Your task to perform on an android device: turn notification dots on Image 0: 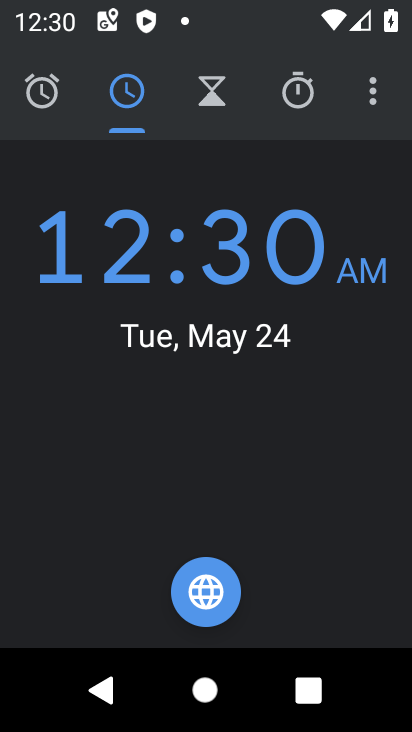
Step 0: press home button
Your task to perform on an android device: turn notification dots on Image 1: 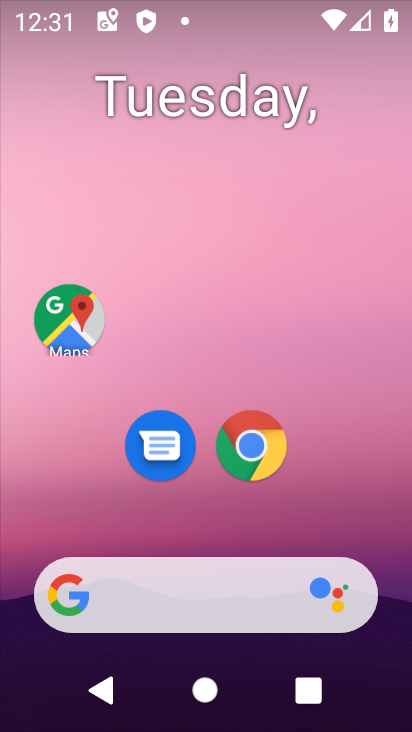
Step 1: drag from (341, 394) to (348, 8)
Your task to perform on an android device: turn notification dots on Image 2: 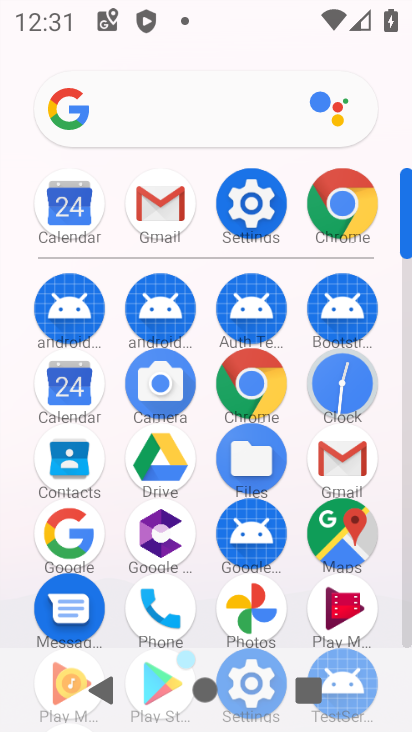
Step 2: click (255, 201)
Your task to perform on an android device: turn notification dots on Image 3: 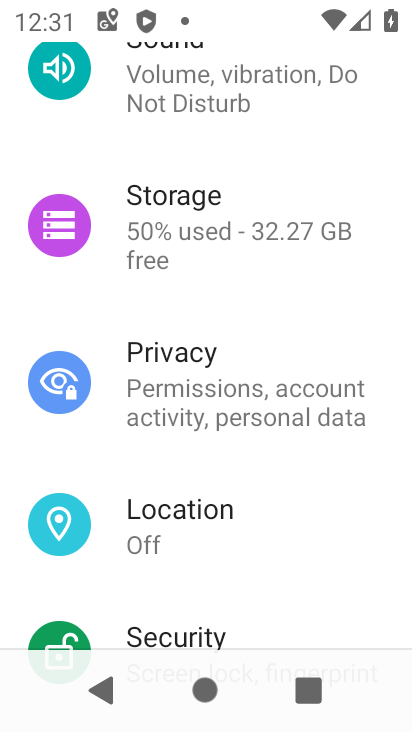
Step 3: drag from (242, 228) to (171, 631)
Your task to perform on an android device: turn notification dots on Image 4: 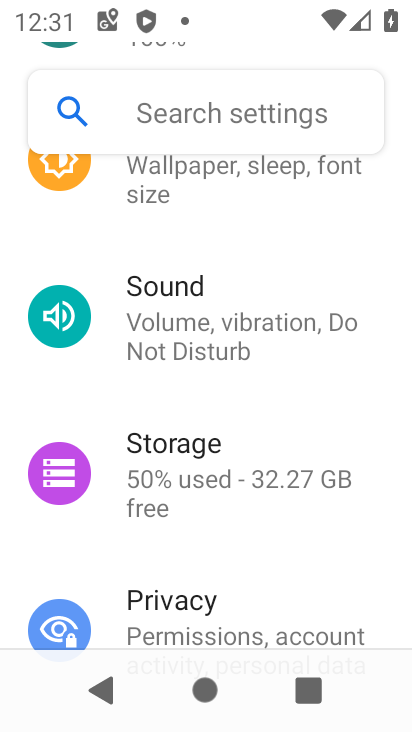
Step 4: drag from (219, 274) to (221, 598)
Your task to perform on an android device: turn notification dots on Image 5: 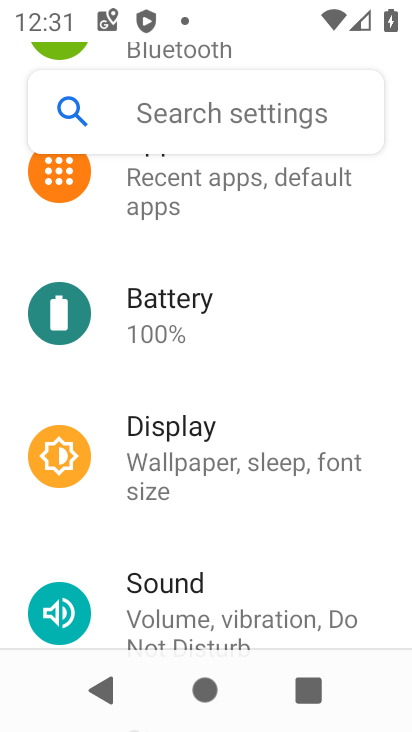
Step 5: drag from (333, 295) to (299, 561)
Your task to perform on an android device: turn notification dots on Image 6: 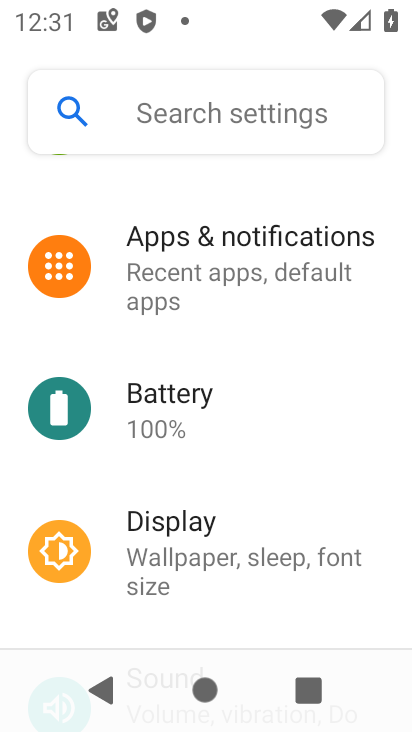
Step 6: drag from (216, 534) to (256, 162)
Your task to perform on an android device: turn notification dots on Image 7: 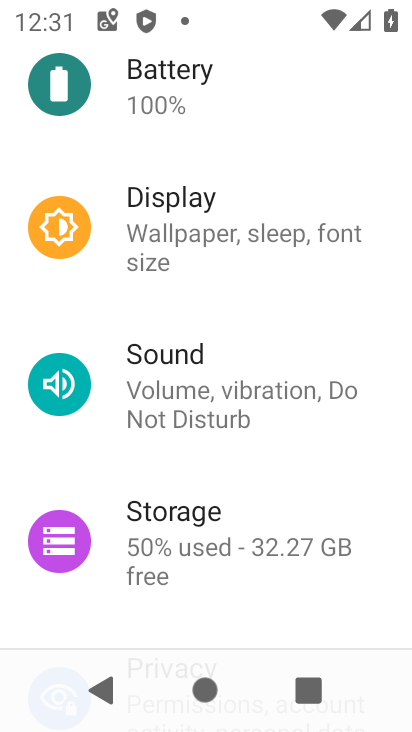
Step 7: drag from (231, 205) to (259, 586)
Your task to perform on an android device: turn notification dots on Image 8: 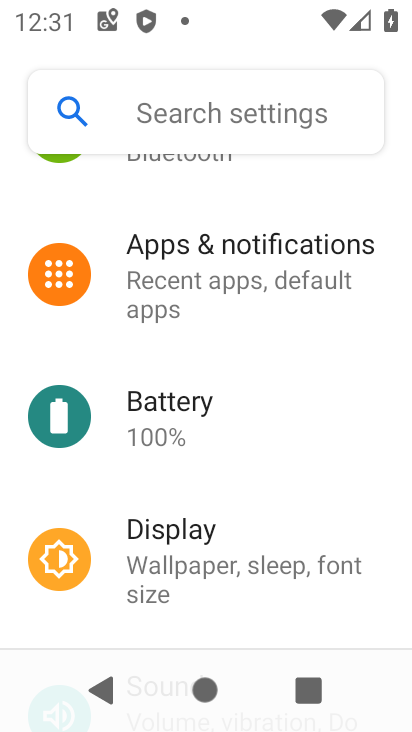
Step 8: drag from (289, 232) to (300, 467)
Your task to perform on an android device: turn notification dots on Image 9: 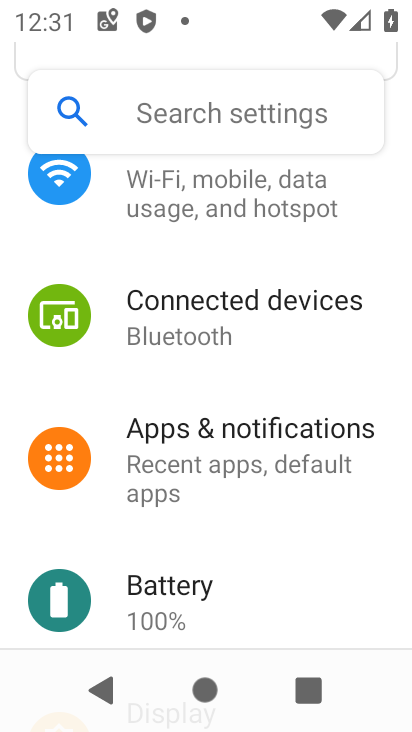
Step 9: click (284, 458)
Your task to perform on an android device: turn notification dots on Image 10: 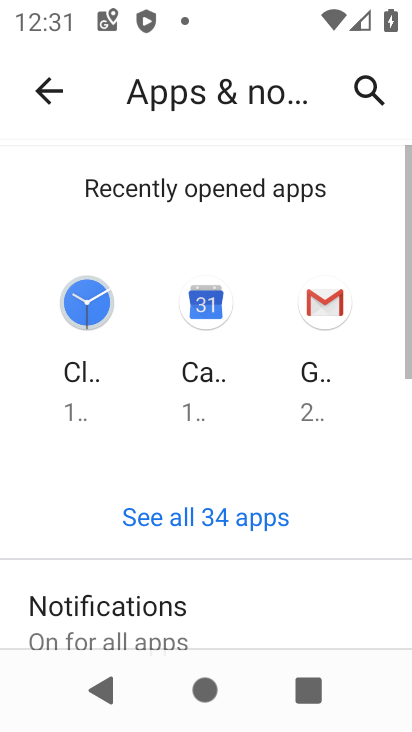
Step 10: drag from (281, 562) to (298, 253)
Your task to perform on an android device: turn notification dots on Image 11: 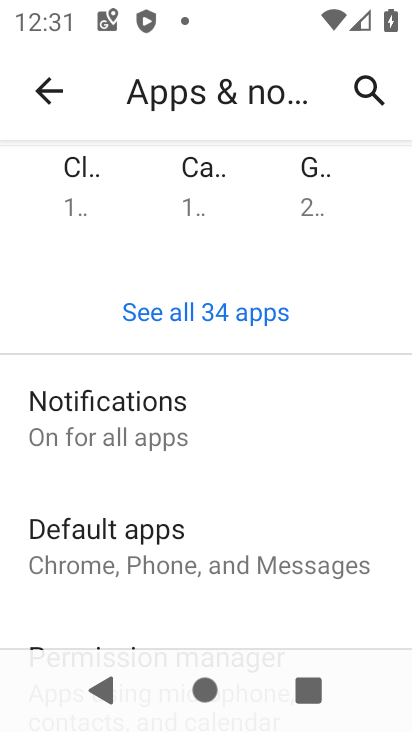
Step 11: click (140, 432)
Your task to perform on an android device: turn notification dots on Image 12: 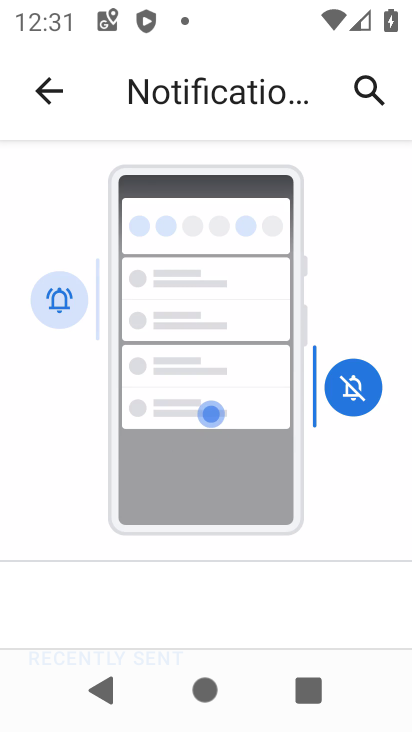
Step 12: drag from (183, 627) to (185, 170)
Your task to perform on an android device: turn notification dots on Image 13: 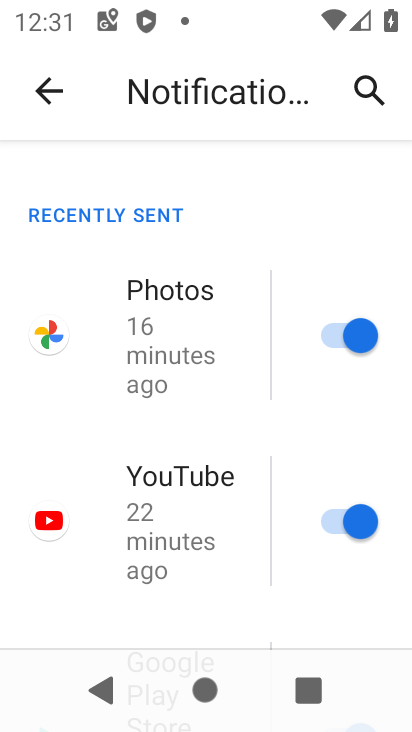
Step 13: drag from (217, 557) to (233, 130)
Your task to perform on an android device: turn notification dots on Image 14: 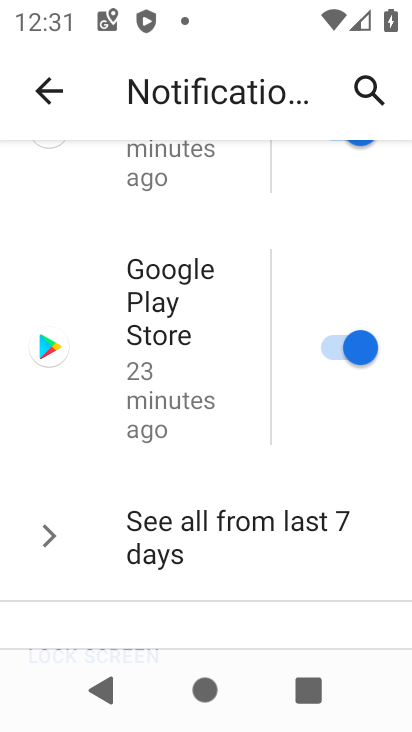
Step 14: drag from (221, 502) to (217, 150)
Your task to perform on an android device: turn notification dots on Image 15: 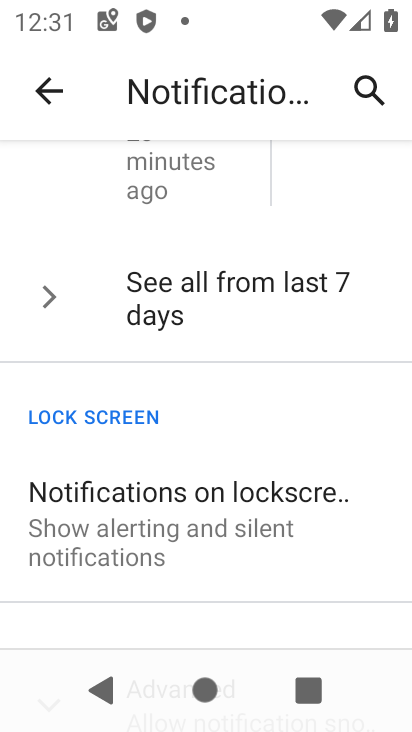
Step 15: drag from (212, 540) to (222, 247)
Your task to perform on an android device: turn notification dots on Image 16: 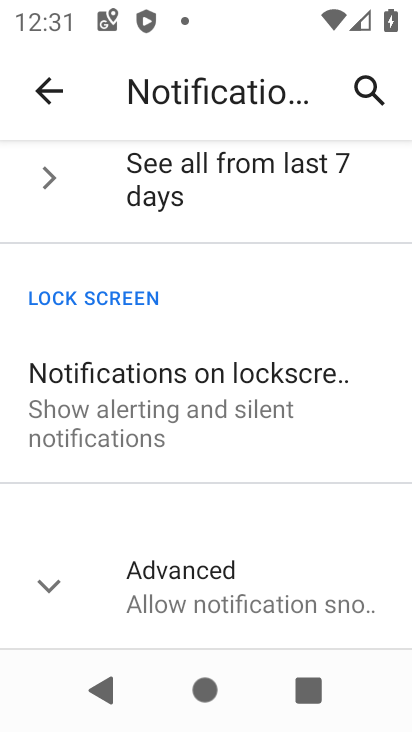
Step 16: click (193, 573)
Your task to perform on an android device: turn notification dots on Image 17: 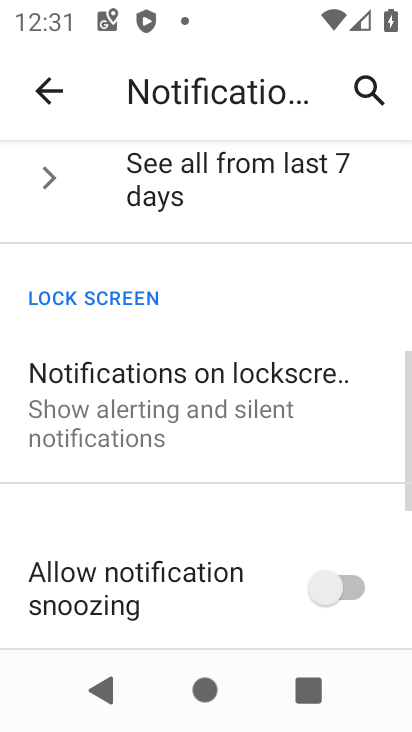
Step 17: task complete